Your task to perform on an android device: toggle notification dots Image 0: 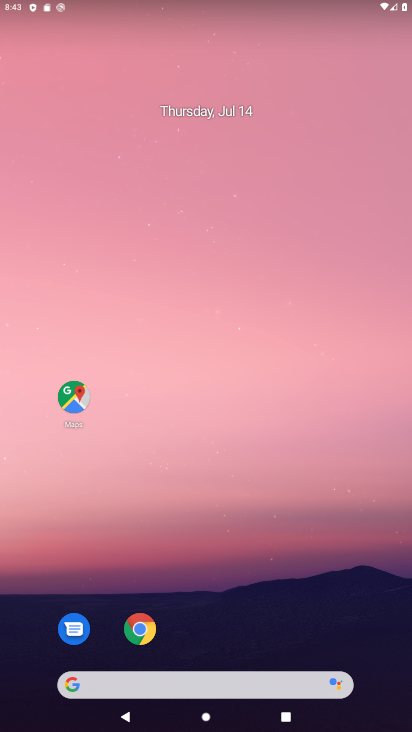
Step 0: drag from (227, 611) to (227, 72)
Your task to perform on an android device: toggle notification dots Image 1: 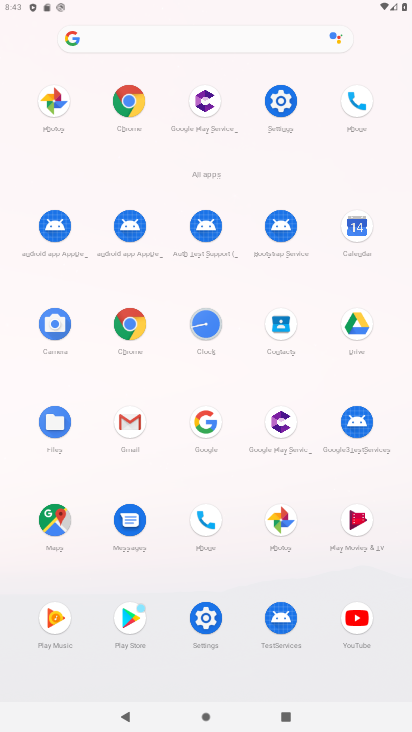
Step 1: click (195, 617)
Your task to perform on an android device: toggle notification dots Image 2: 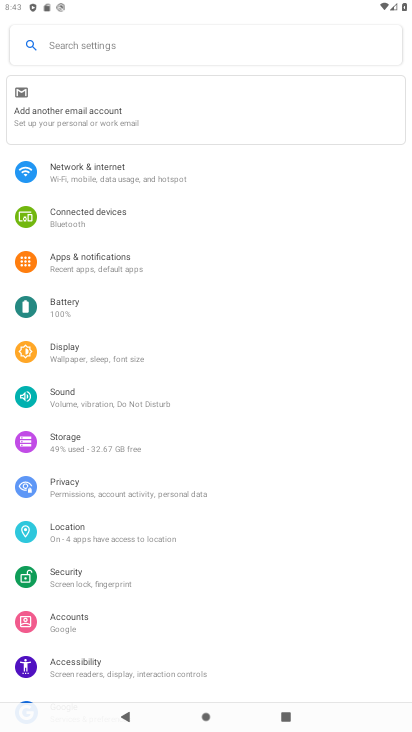
Step 2: click (123, 259)
Your task to perform on an android device: toggle notification dots Image 3: 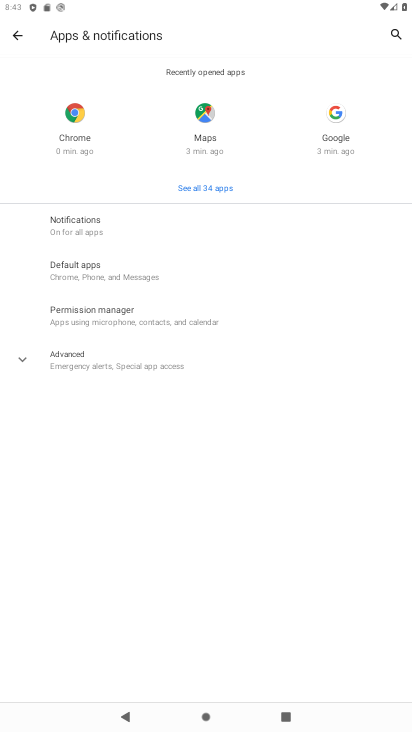
Step 3: click (100, 223)
Your task to perform on an android device: toggle notification dots Image 4: 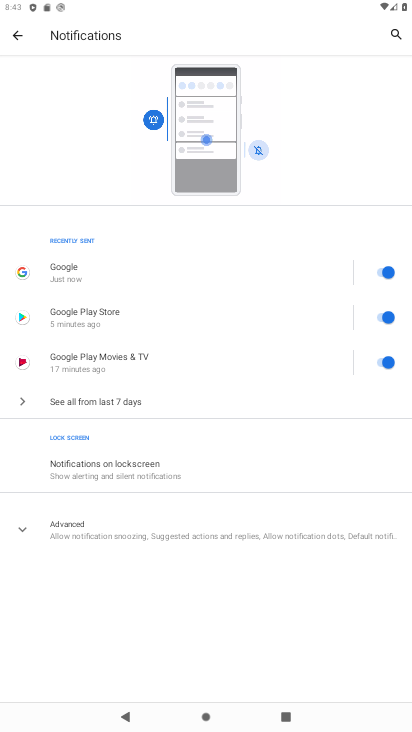
Step 4: click (112, 521)
Your task to perform on an android device: toggle notification dots Image 5: 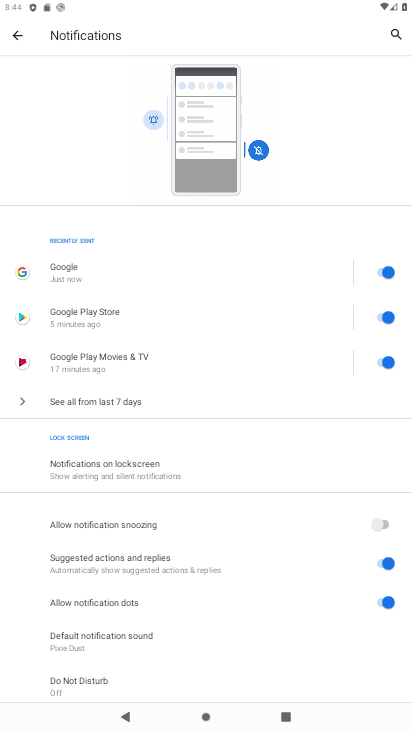
Step 5: click (376, 600)
Your task to perform on an android device: toggle notification dots Image 6: 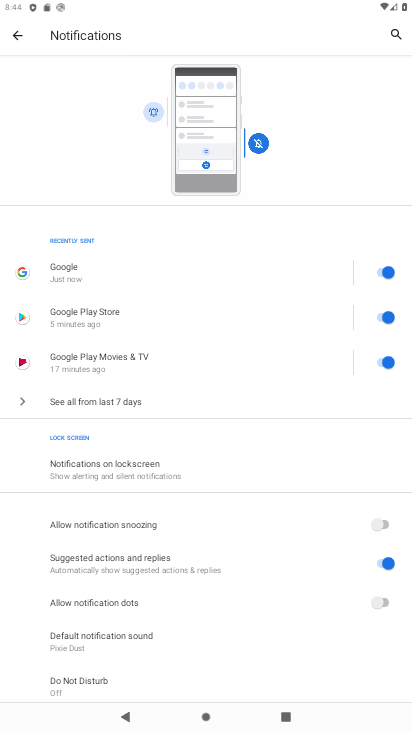
Step 6: task complete